Your task to perform on an android device: What's the weather today? Image 0: 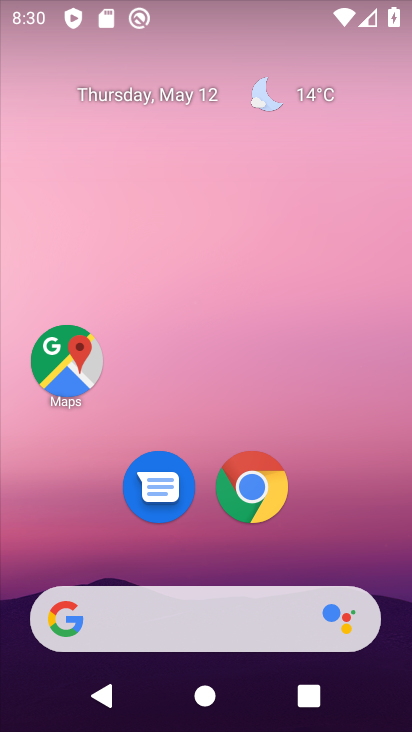
Step 0: click (193, 628)
Your task to perform on an android device: What's the weather today? Image 1: 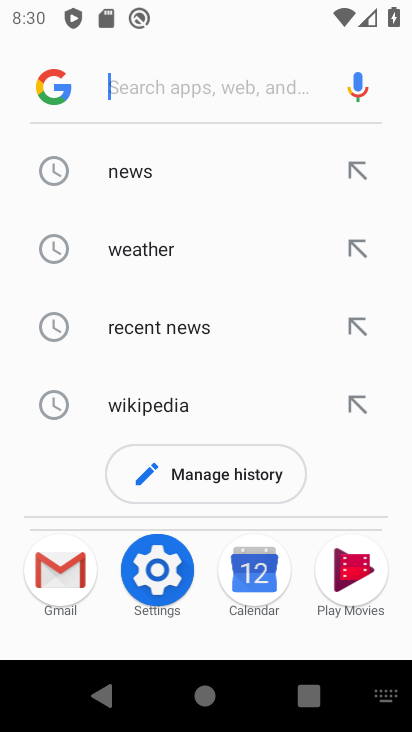
Step 1: click (123, 249)
Your task to perform on an android device: What's the weather today? Image 2: 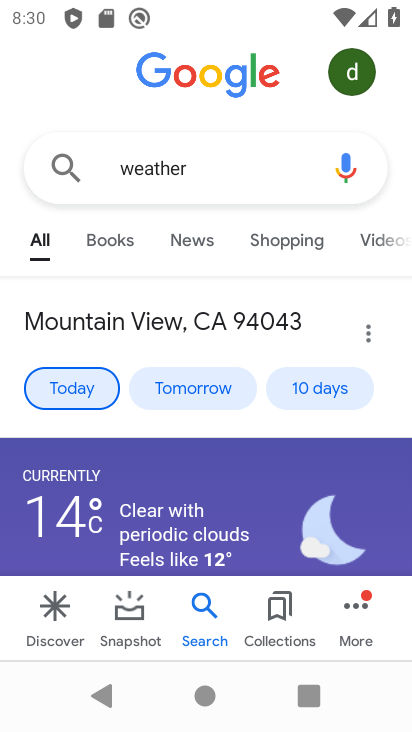
Step 2: click (92, 393)
Your task to perform on an android device: What's the weather today? Image 3: 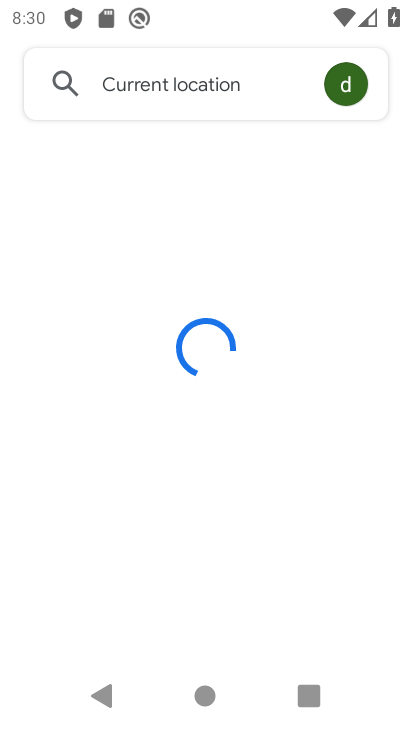
Step 3: task complete